Your task to perform on an android device: Go to display settings Image 0: 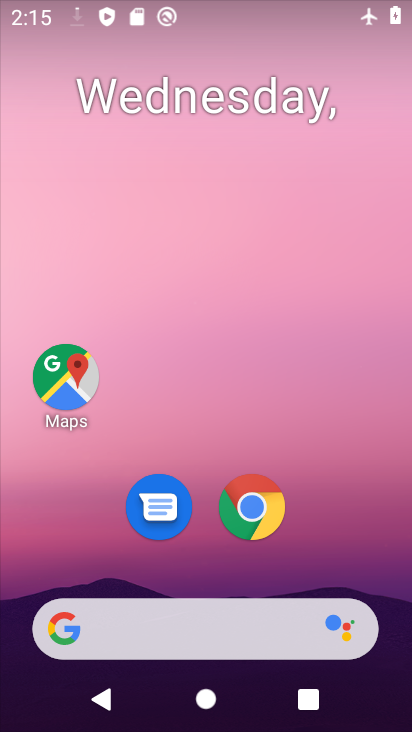
Step 0: drag from (359, 515) to (319, 155)
Your task to perform on an android device: Go to display settings Image 1: 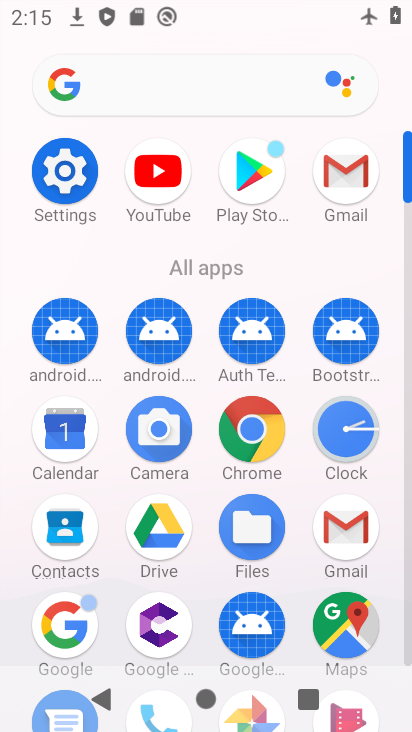
Step 1: click (74, 205)
Your task to perform on an android device: Go to display settings Image 2: 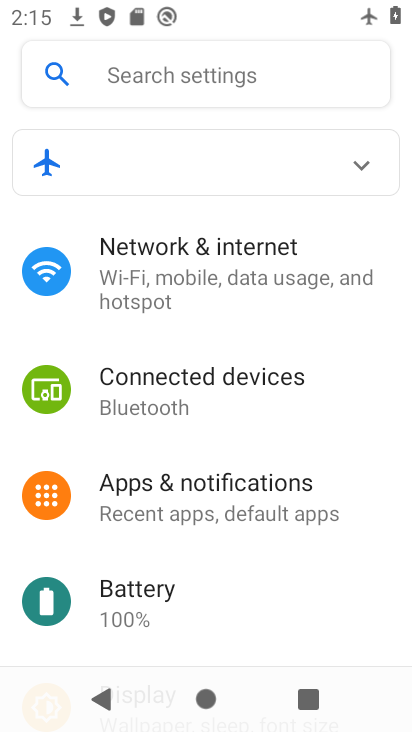
Step 2: drag from (199, 560) to (198, 340)
Your task to perform on an android device: Go to display settings Image 3: 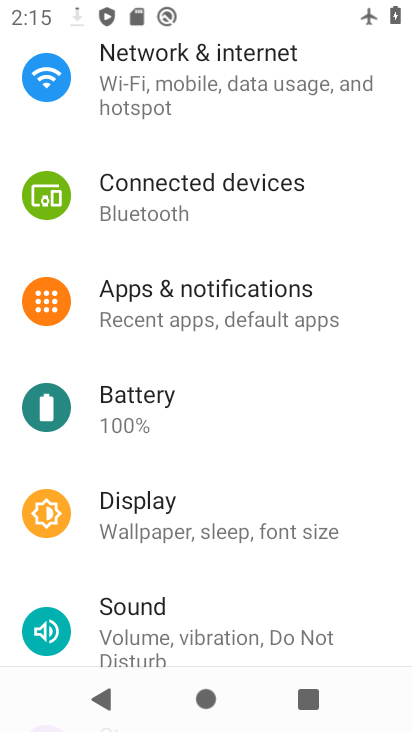
Step 3: click (139, 533)
Your task to perform on an android device: Go to display settings Image 4: 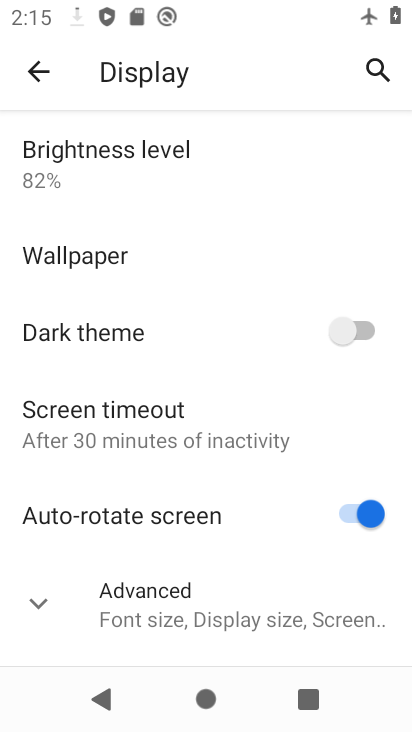
Step 4: task complete